Your task to perform on an android device: toggle show notifications on the lock screen Image 0: 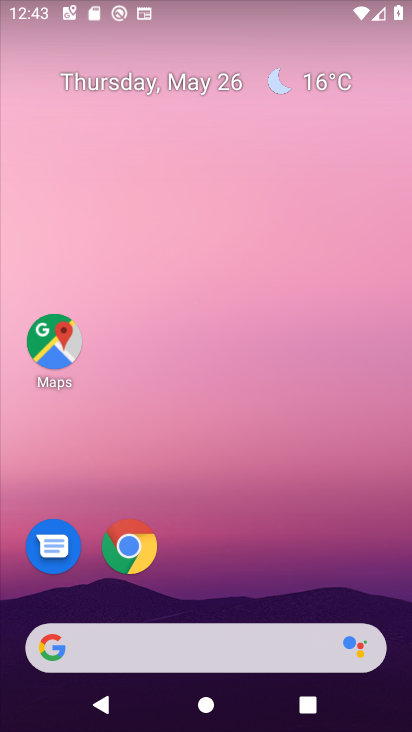
Step 0: drag from (231, 546) to (325, 232)
Your task to perform on an android device: toggle show notifications on the lock screen Image 1: 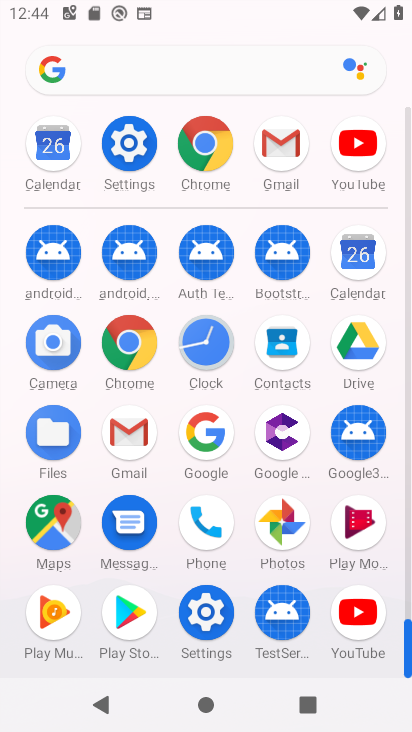
Step 1: click (206, 609)
Your task to perform on an android device: toggle show notifications on the lock screen Image 2: 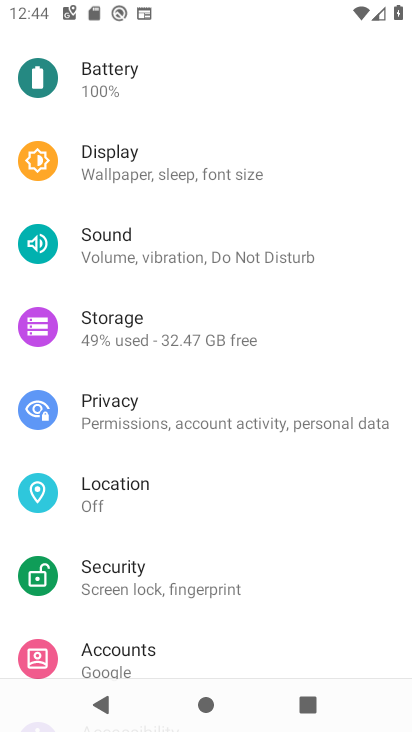
Step 2: drag from (178, 594) to (300, 5)
Your task to perform on an android device: toggle show notifications on the lock screen Image 3: 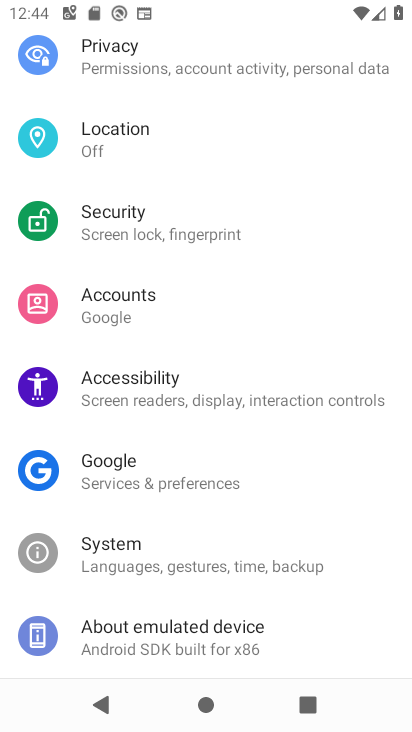
Step 3: drag from (177, 546) to (173, 233)
Your task to perform on an android device: toggle show notifications on the lock screen Image 4: 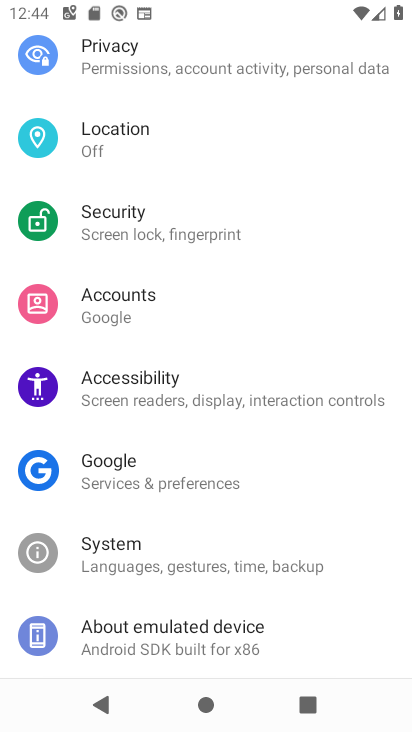
Step 4: drag from (183, 152) to (174, 574)
Your task to perform on an android device: toggle show notifications on the lock screen Image 5: 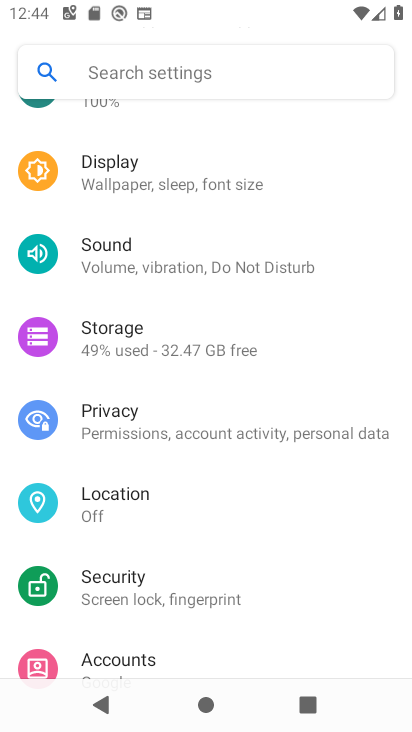
Step 5: drag from (181, 169) to (157, 522)
Your task to perform on an android device: toggle show notifications on the lock screen Image 6: 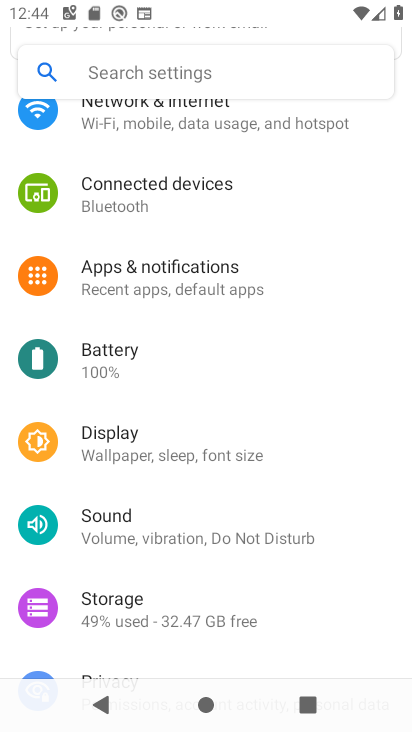
Step 6: click (195, 274)
Your task to perform on an android device: toggle show notifications on the lock screen Image 7: 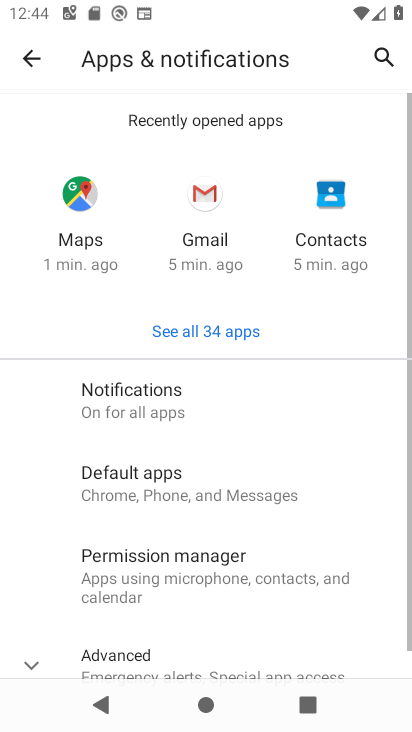
Step 7: click (183, 406)
Your task to perform on an android device: toggle show notifications on the lock screen Image 8: 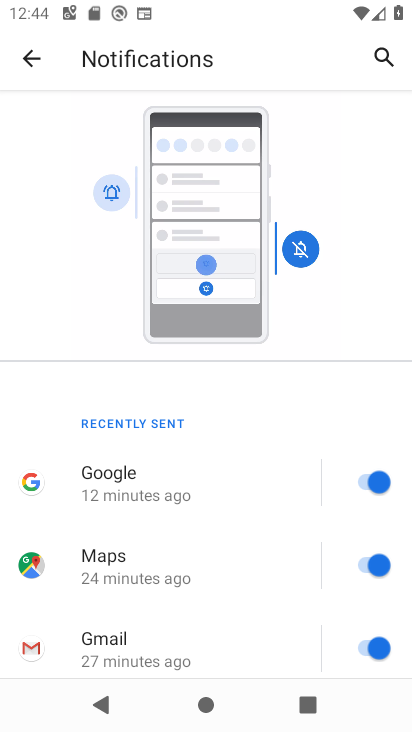
Step 8: drag from (163, 625) to (184, 178)
Your task to perform on an android device: toggle show notifications on the lock screen Image 9: 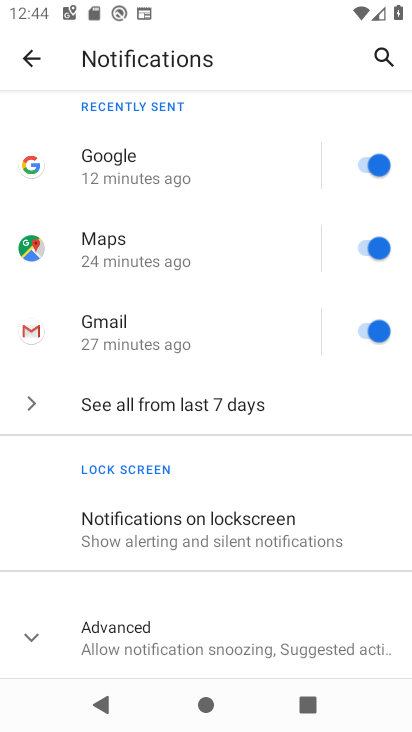
Step 9: click (115, 534)
Your task to perform on an android device: toggle show notifications on the lock screen Image 10: 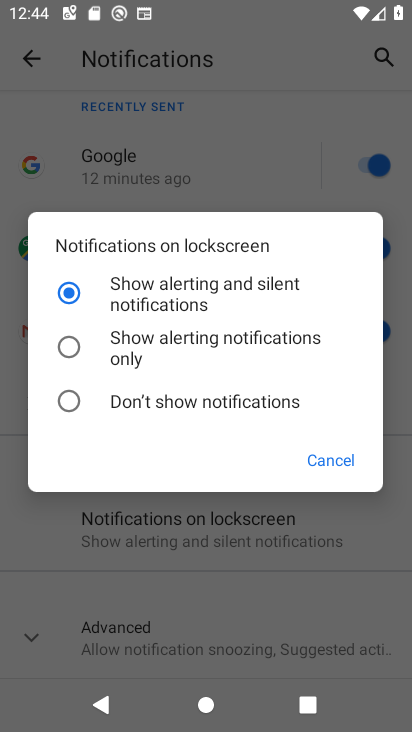
Step 10: task complete